Your task to perform on an android device: turn off data saver in the chrome app Image 0: 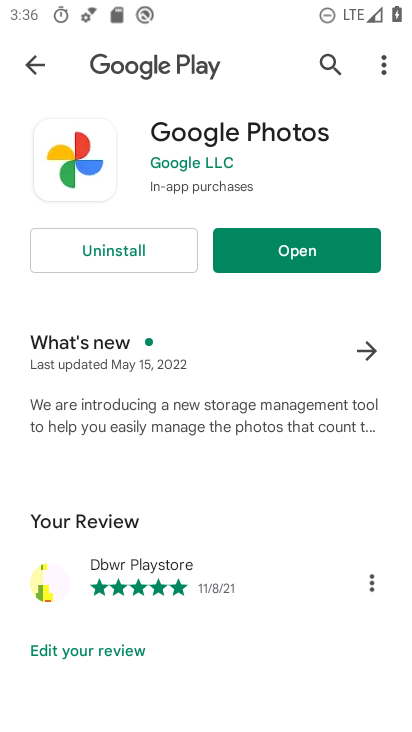
Step 0: press home button
Your task to perform on an android device: turn off data saver in the chrome app Image 1: 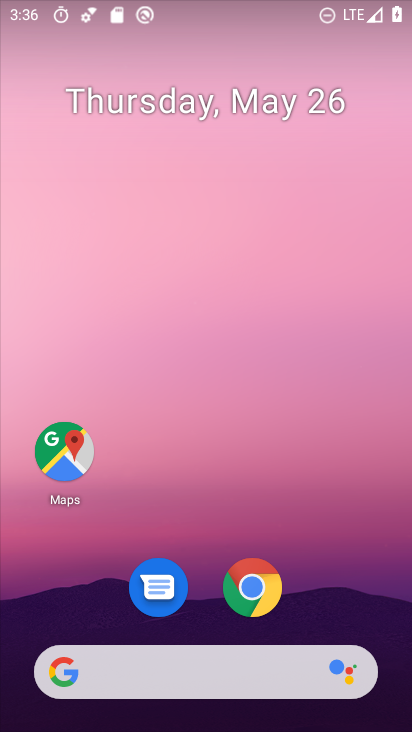
Step 1: click (244, 597)
Your task to perform on an android device: turn off data saver in the chrome app Image 2: 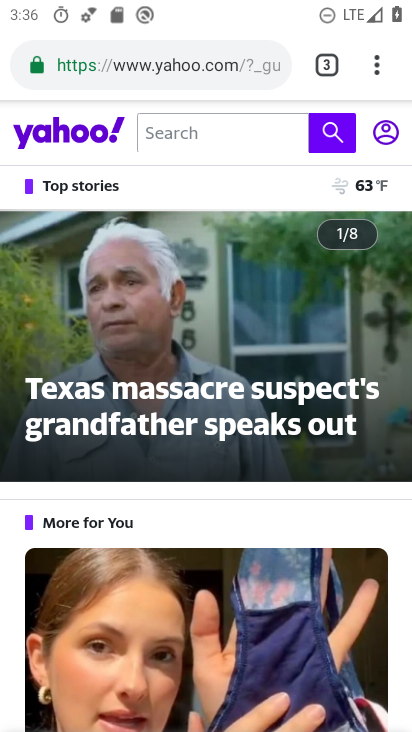
Step 2: drag from (376, 54) to (188, 643)
Your task to perform on an android device: turn off data saver in the chrome app Image 3: 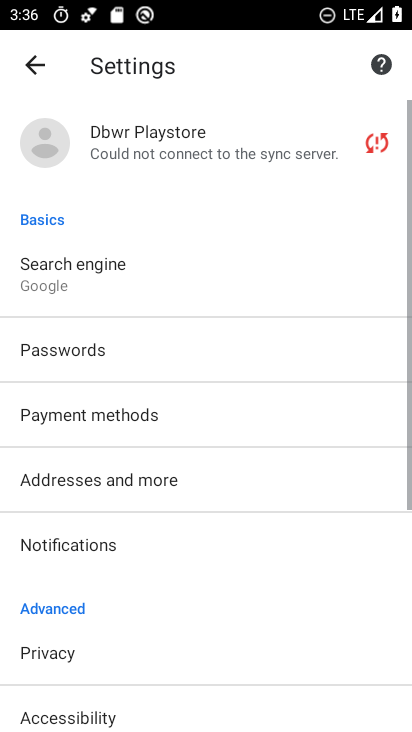
Step 3: drag from (201, 624) to (271, 32)
Your task to perform on an android device: turn off data saver in the chrome app Image 4: 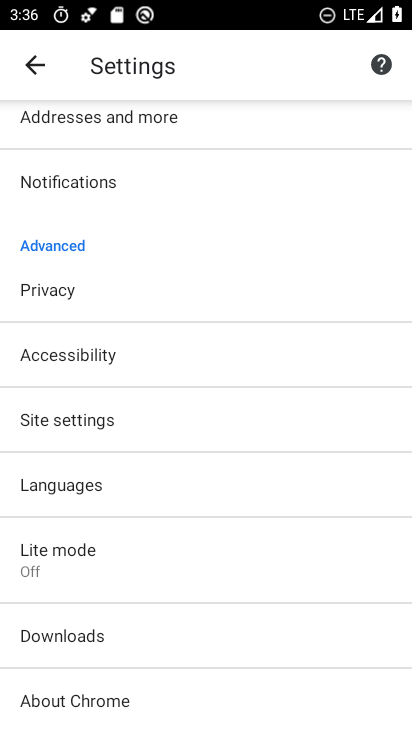
Step 4: click (113, 540)
Your task to perform on an android device: turn off data saver in the chrome app Image 5: 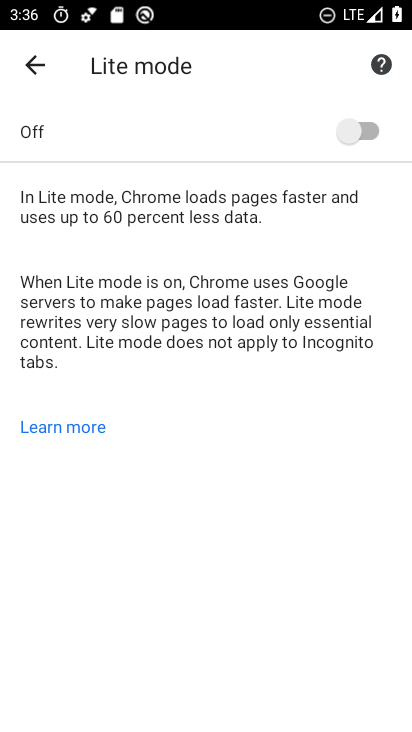
Step 5: task complete